Your task to perform on an android device: change the clock style Image 0: 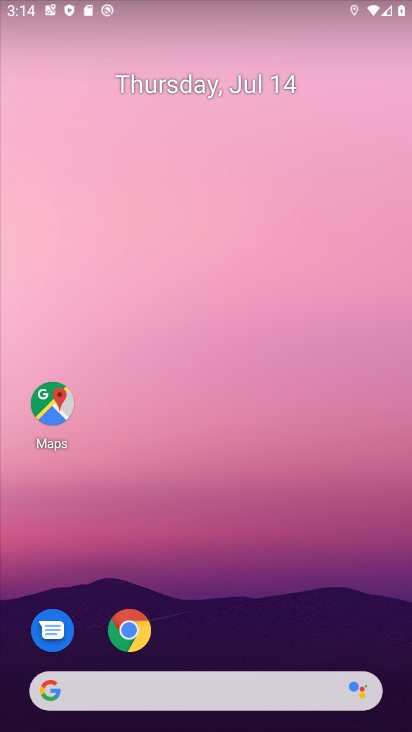
Step 0: drag from (304, 628) to (329, 105)
Your task to perform on an android device: change the clock style Image 1: 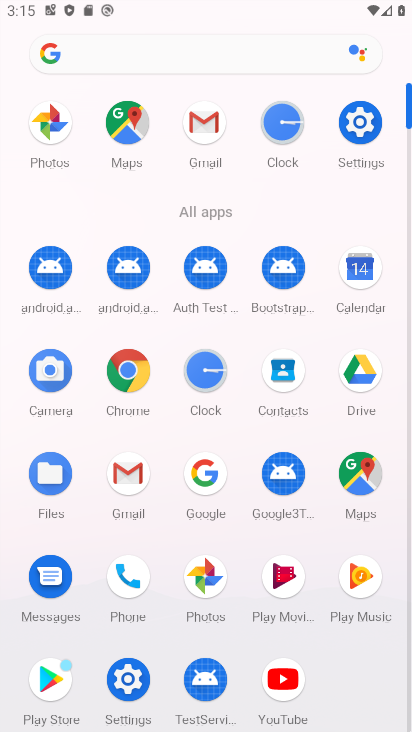
Step 1: click (292, 120)
Your task to perform on an android device: change the clock style Image 2: 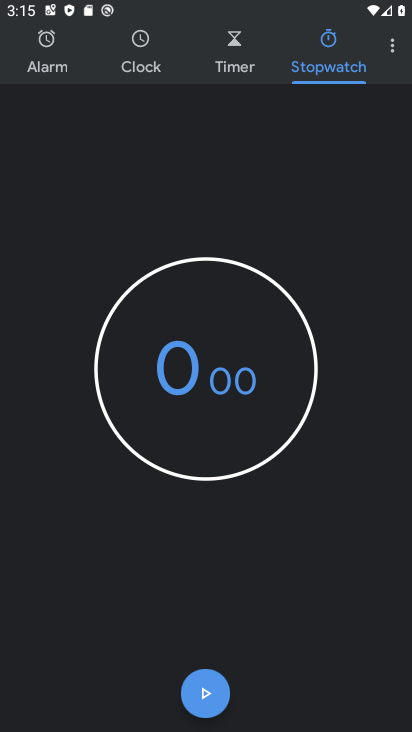
Step 2: click (391, 53)
Your task to perform on an android device: change the clock style Image 3: 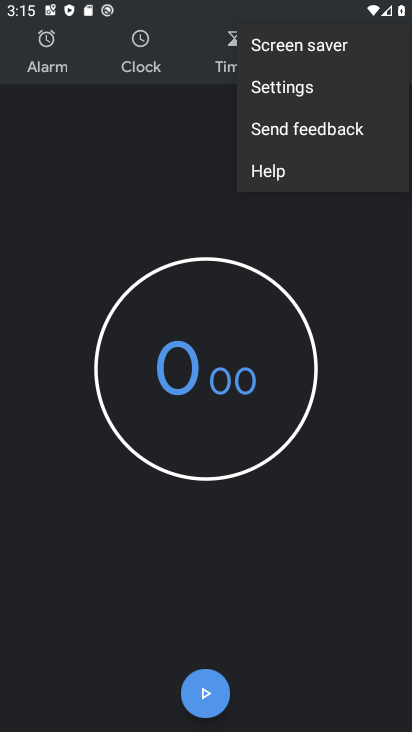
Step 3: click (288, 96)
Your task to perform on an android device: change the clock style Image 4: 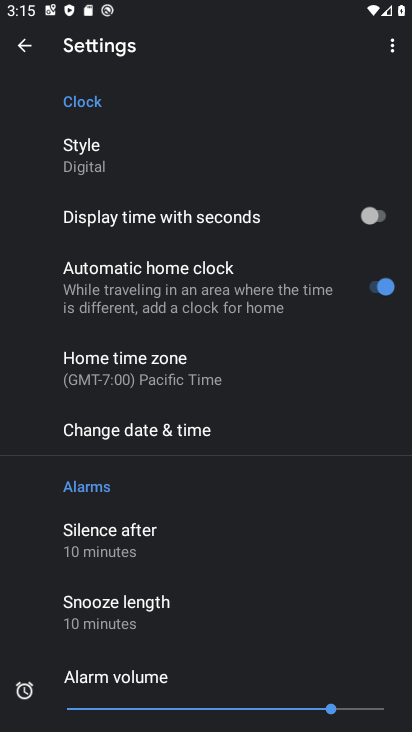
Step 4: click (106, 168)
Your task to perform on an android device: change the clock style Image 5: 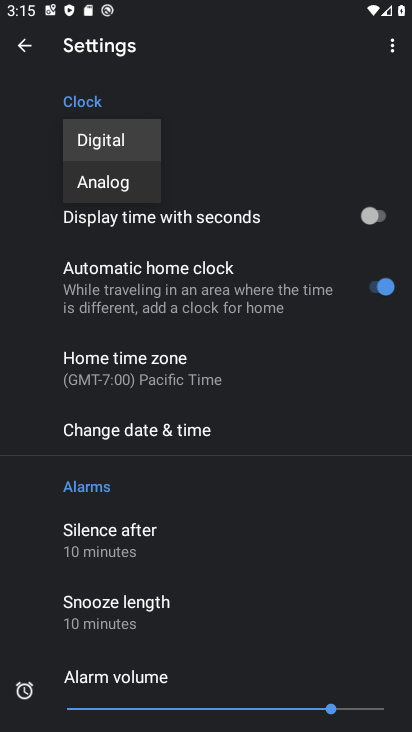
Step 5: click (116, 188)
Your task to perform on an android device: change the clock style Image 6: 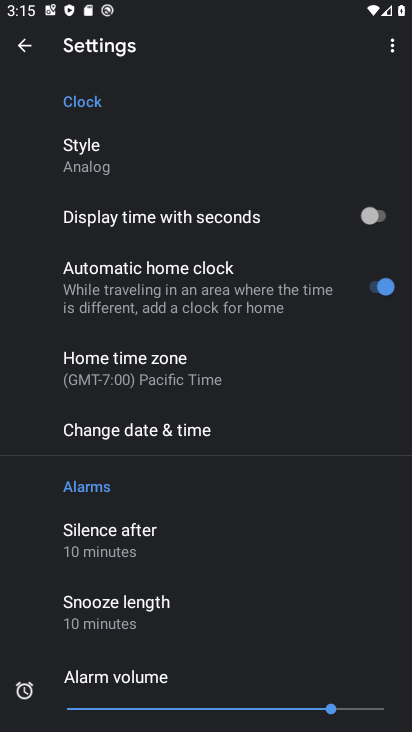
Step 6: task complete